Your task to perform on an android device: Search for Italian restaurants on Maps Image 0: 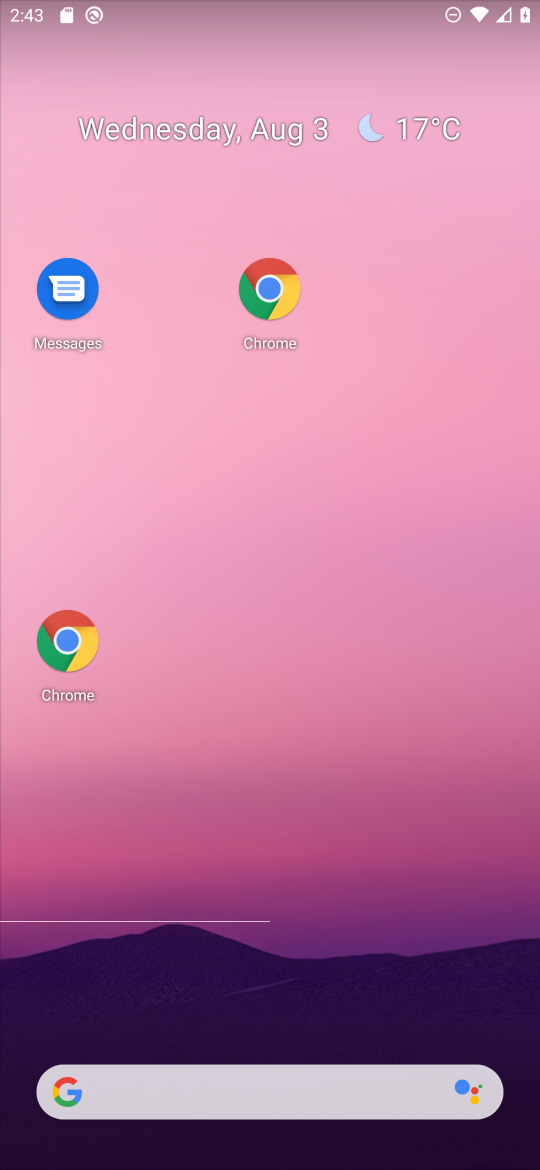
Step 0: drag from (329, 978) to (424, 90)
Your task to perform on an android device: Search for Italian restaurants on Maps Image 1: 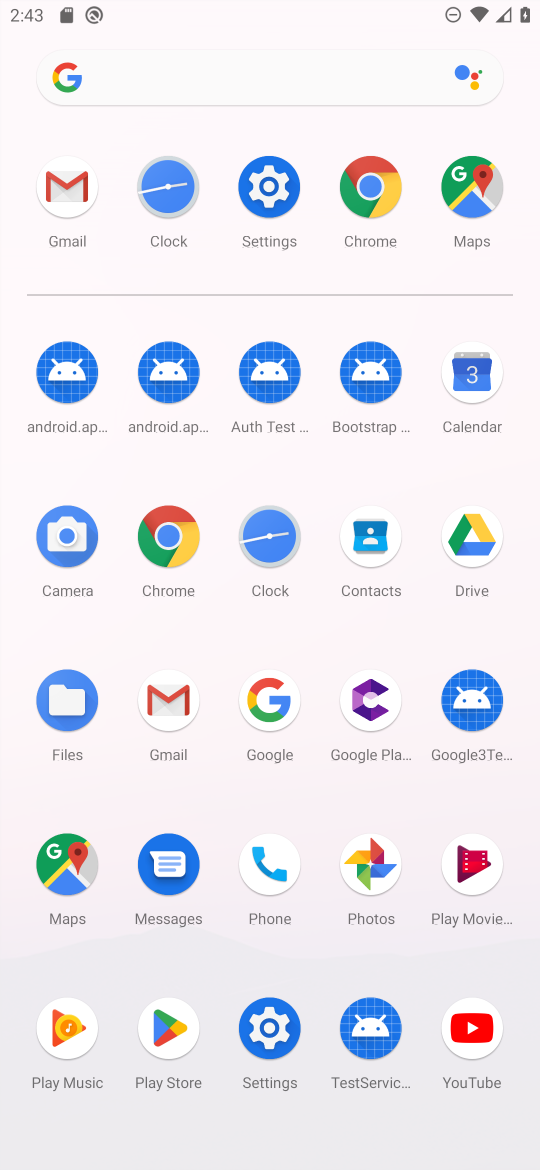
Step 1: click (93, 886)
Your task to perform on an android device: Search for Italian restaurants on Maps Image 2: 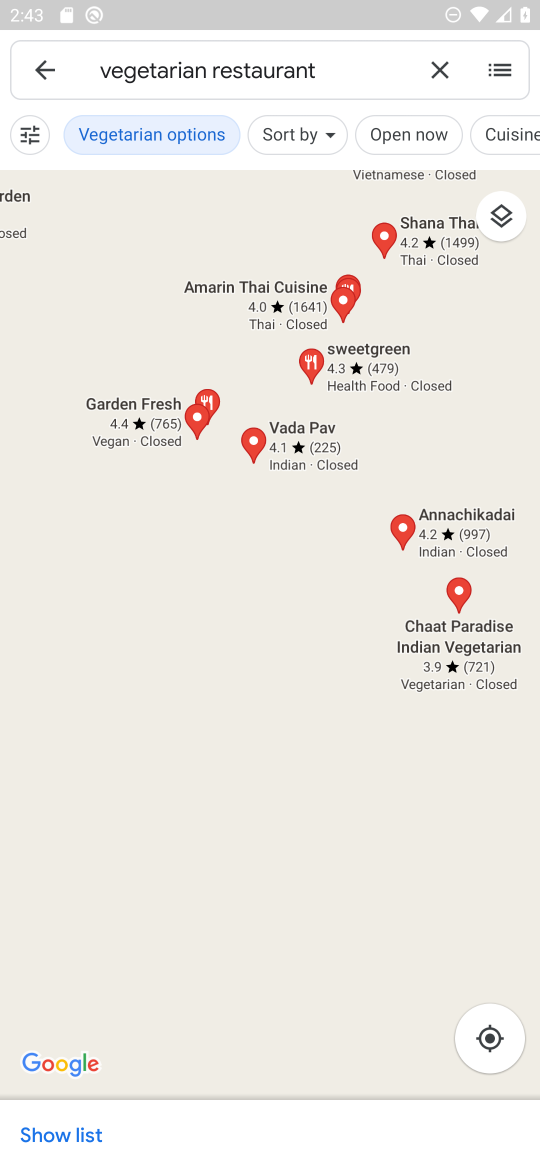
Step 2: click (448, 76)
Your task to perform on an android device: Search for Italian restaurants on Maps Image 3: 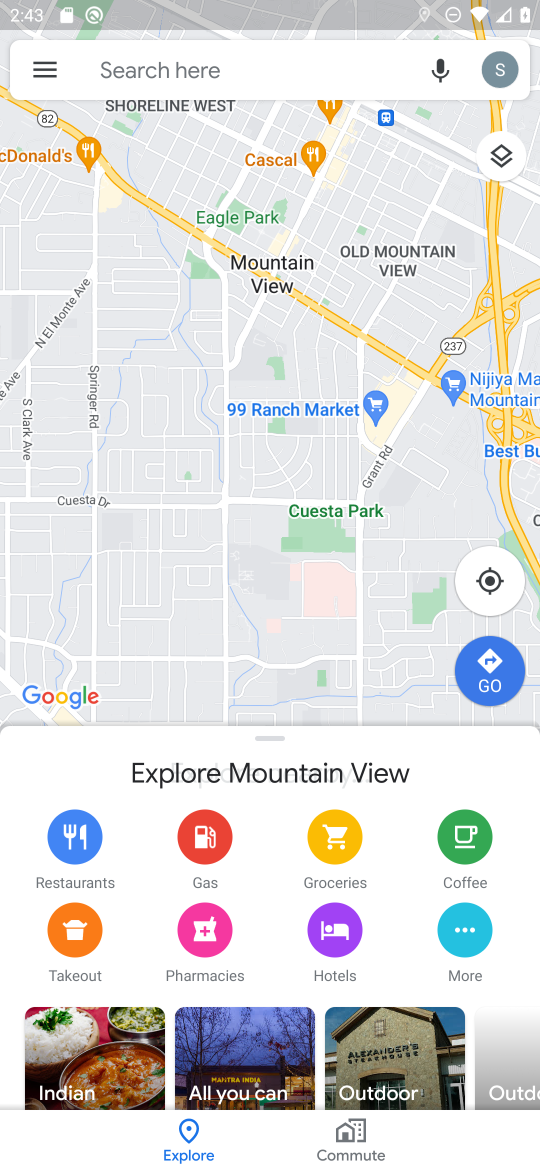
Step 3: click (343, 60)
Your task to perform on an android device: Search for Italian restaurants on Maps Image 4: 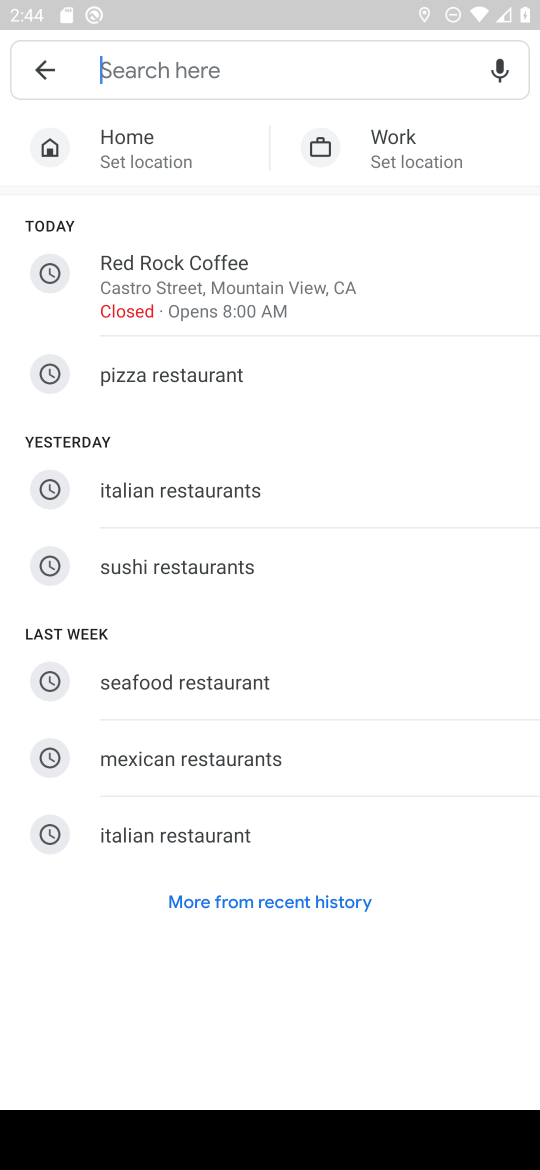
Step 4: type "italian"
Your task to perform on an android device: Search for Italian restaurants on Maps Image 5: 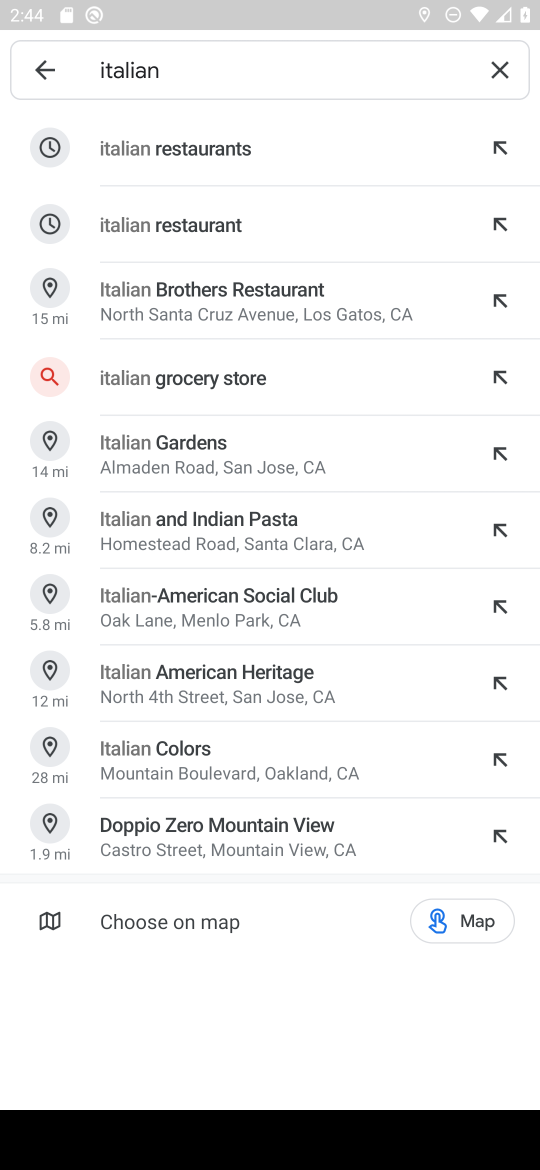
Step 5: click (147, 154)
Your task to perform on an android device: Search for Italian restaurants on Maps Image 6: 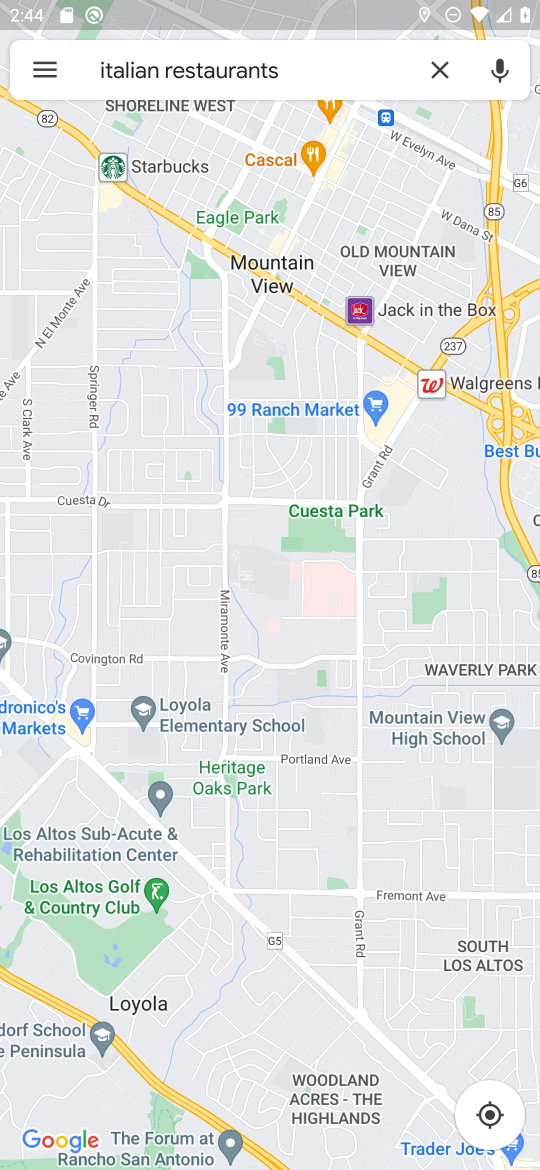
Step 6: task complete